Your task to perform on an android device: What's the weather today? Image 0: 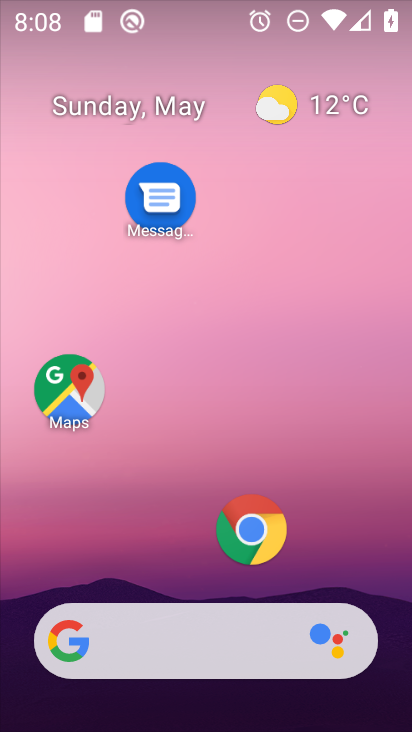
Step 0: press home button
Your task to perform on an android device: What's the weather today? Image 1: 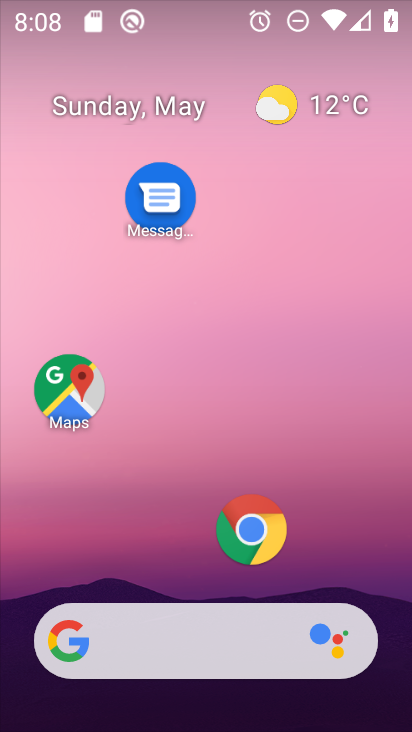
Step 1: drag from (197, 575) to (252, 113)
Your task to perform on an android device: What's the weather today? Image 2: 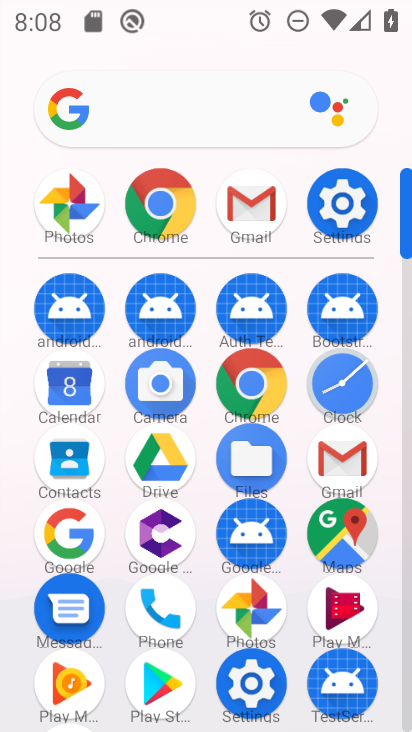
Step 2: press home button
Your task to perform on an android device: What's the weather today? Image 3: 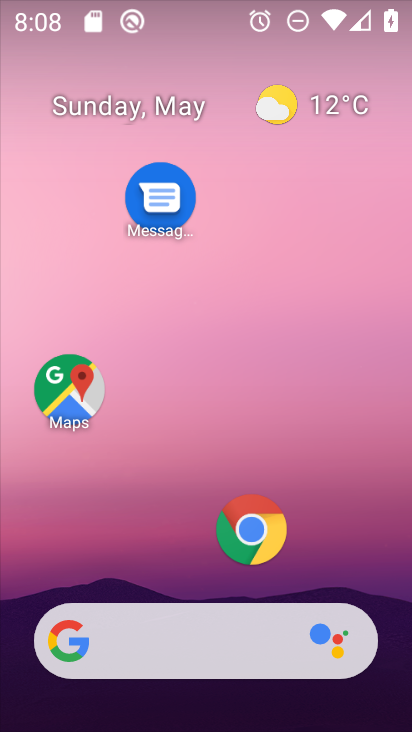
Step 3: click (275, 100)
Your task to perform on an android device: What's the weather today? Image 4: 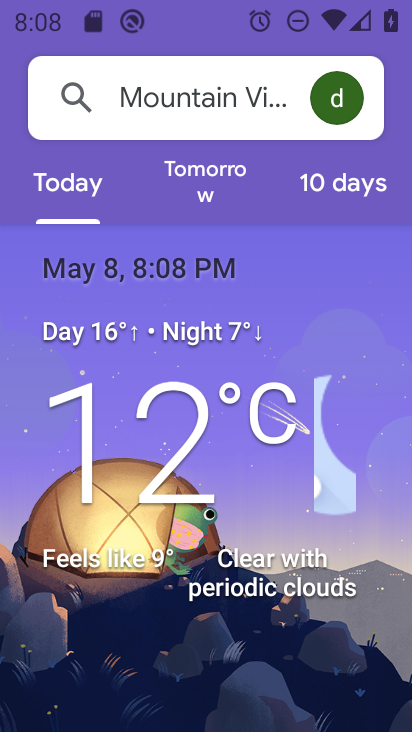
Step 4: task complete